Your task to perform on an android device: Open calendar and show me the second week of next month Image 0: 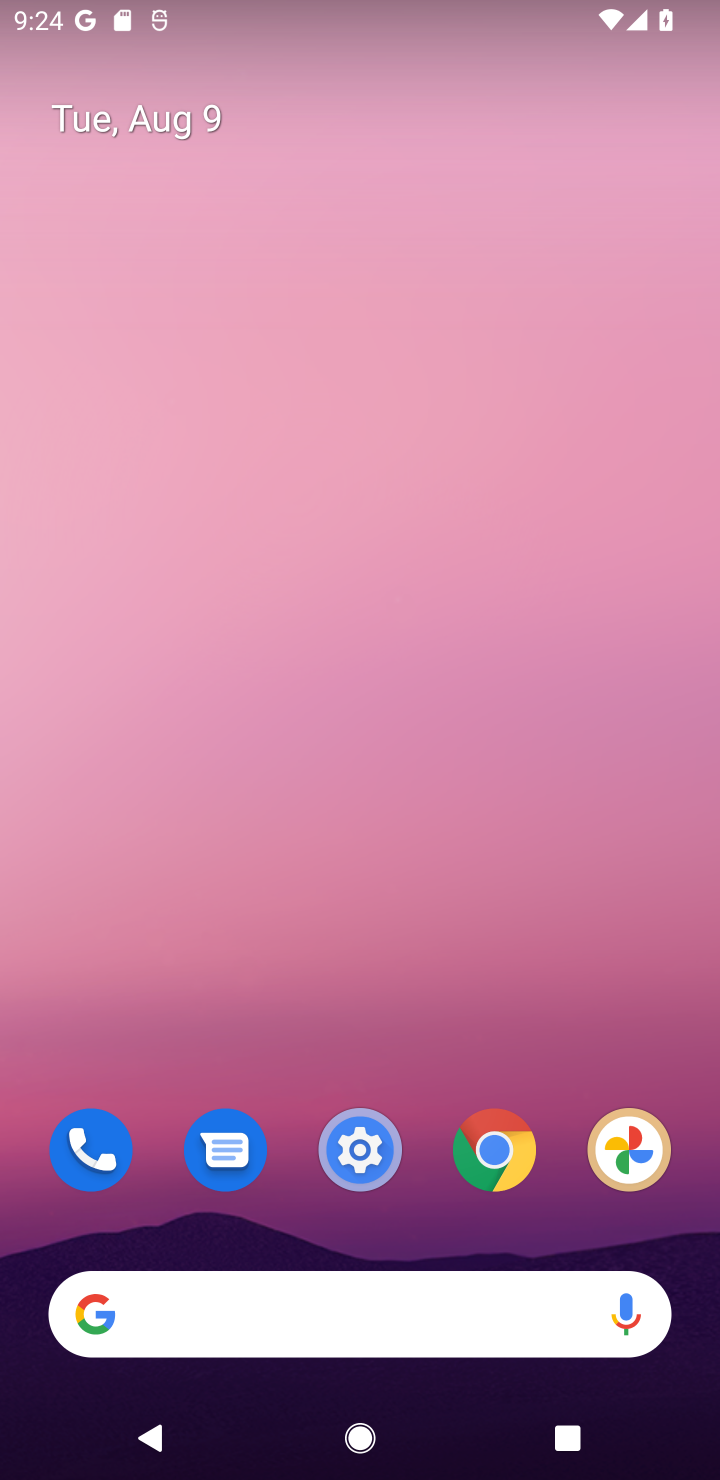
Step 0: drag from (327, 1318) to (437, 183)
Your task to perform on an android device: Open calendar and show me the second week of next month Image 1: 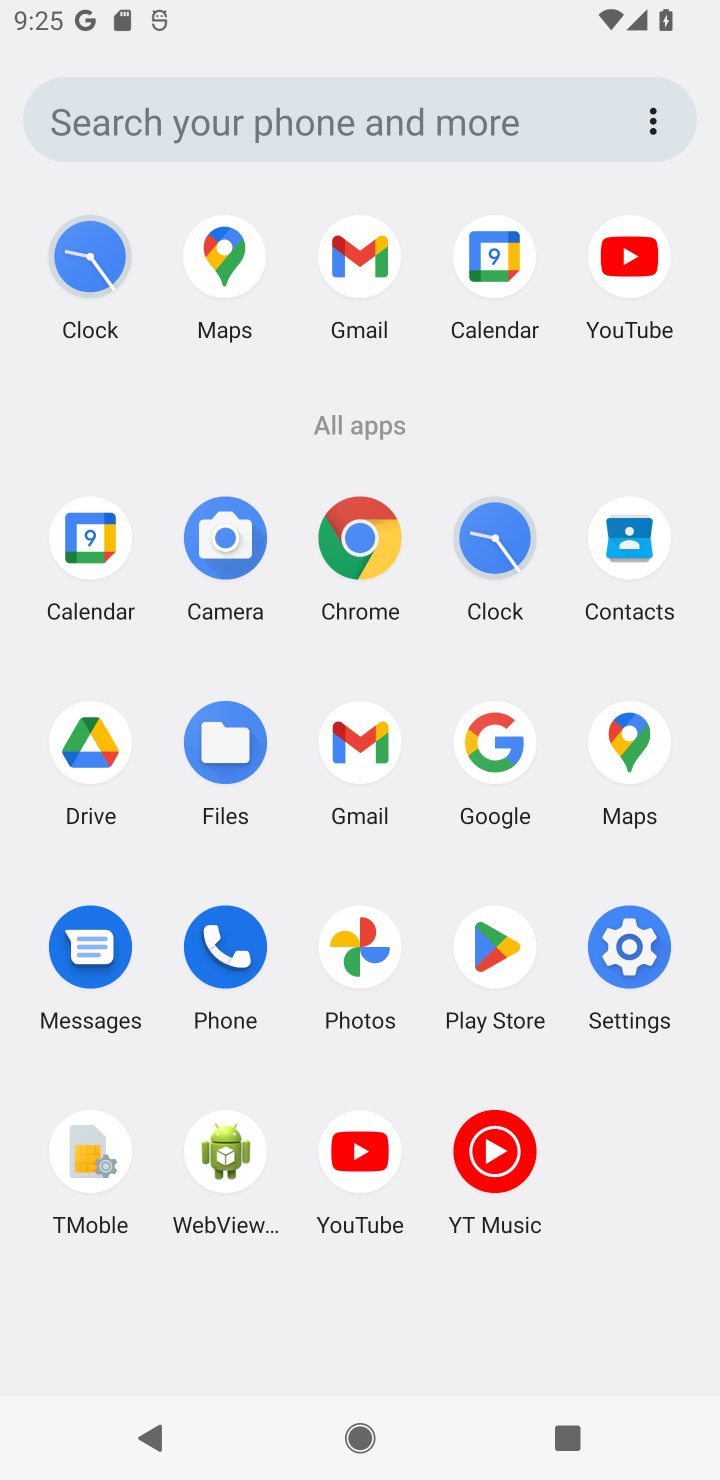
Step 1: click (109, 593)
Your task to perform on an android device: Open calendar and show me the second week of next month Image 2: 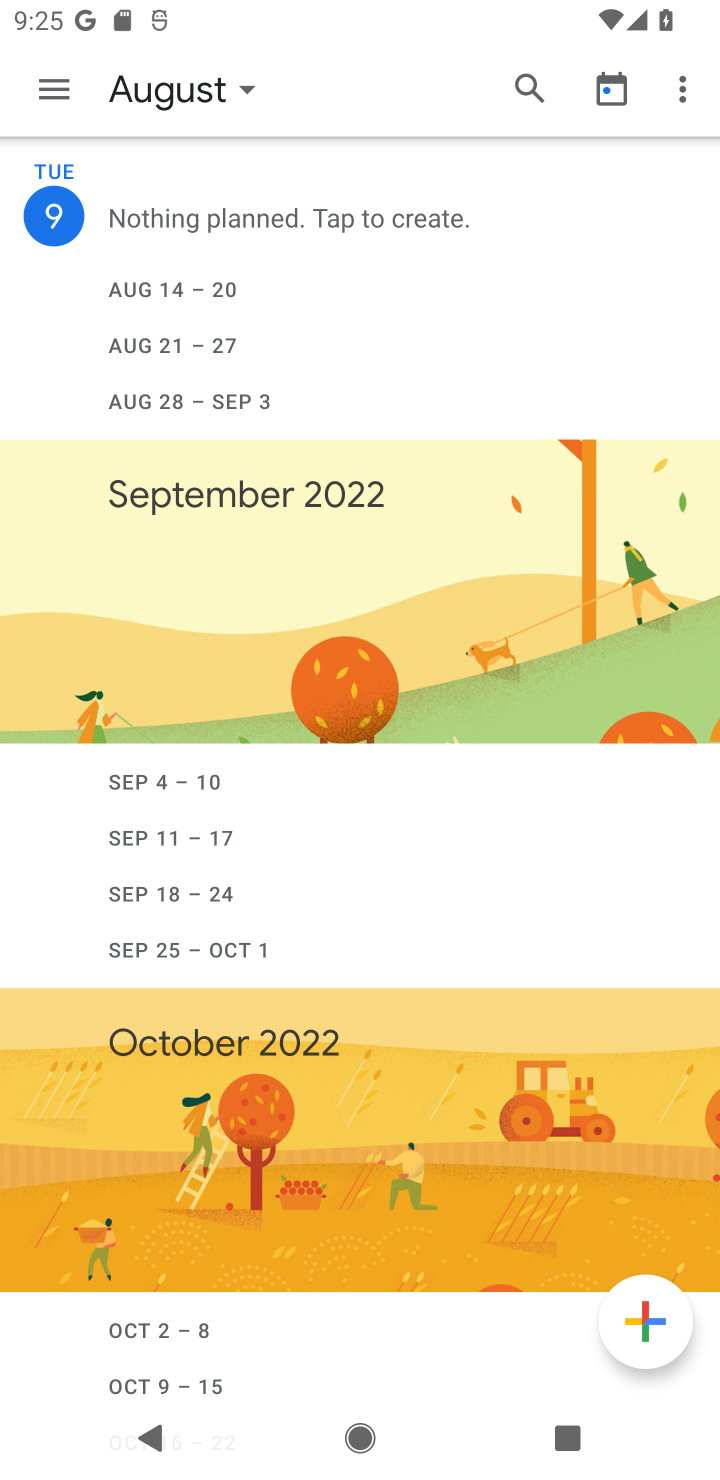
Step 2: click (138, 106)
Your task to perform on an android device: Open calendar and show me the second week of next month Image 3: 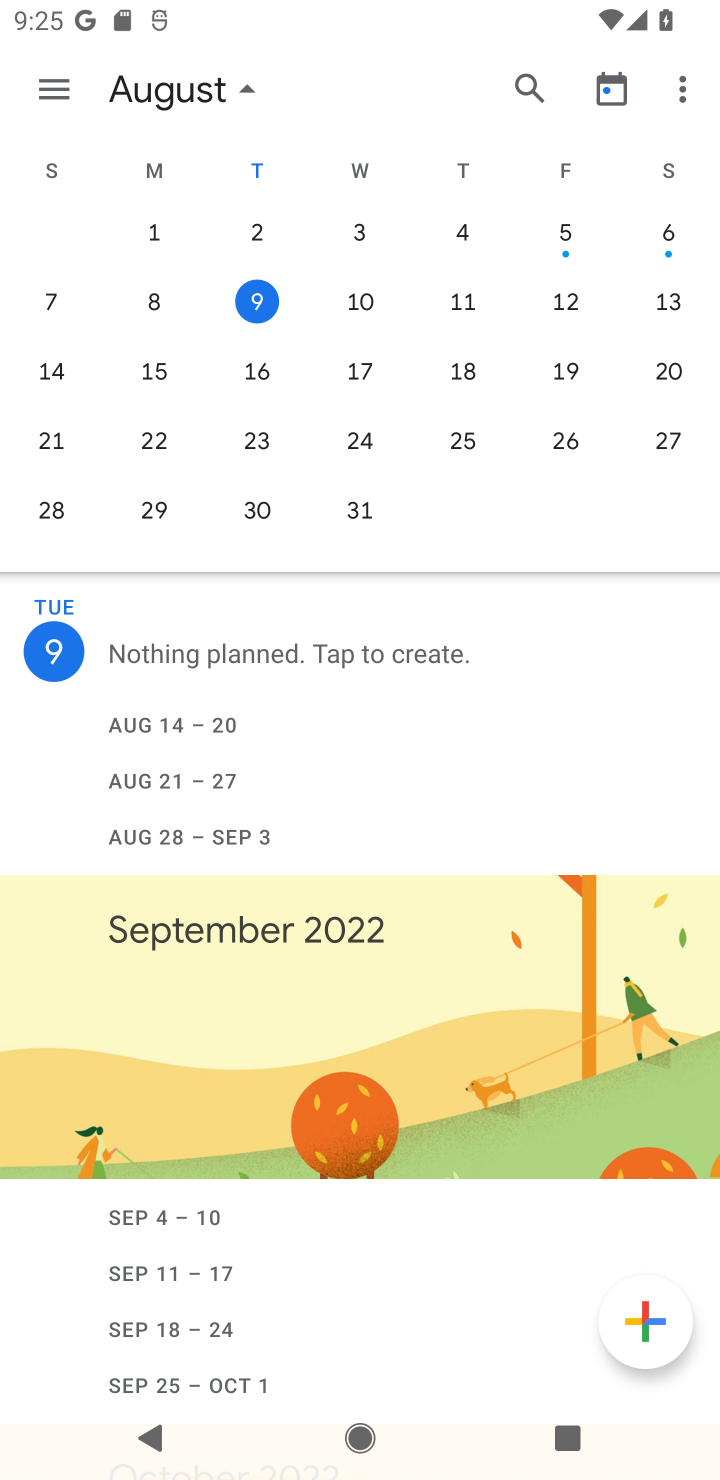
Step 3: drag from (586, 332) to (6, 359)
Your task to perform on an android device: Open calendar and show me the second week of next month Image 4: 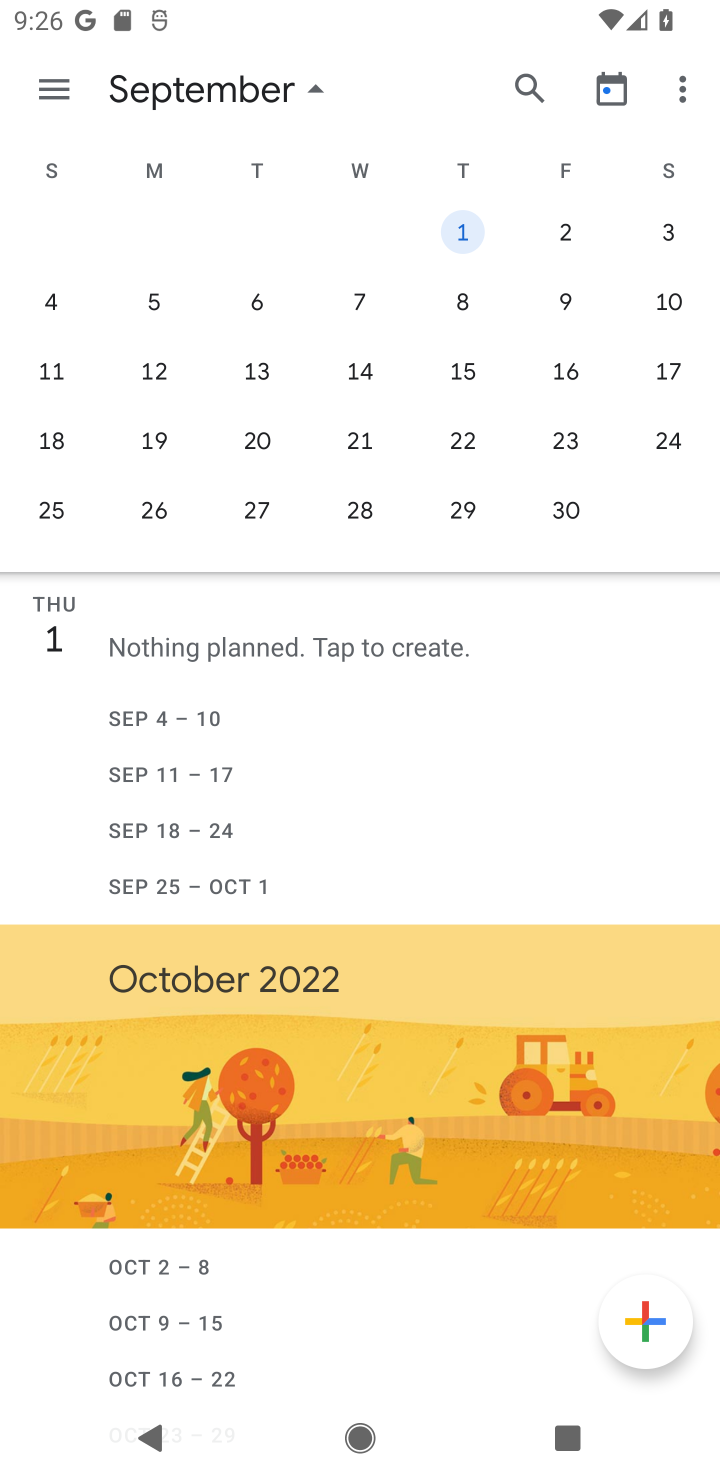
Step 4: click (74, 360)
Your task to perform on an android device: Open calendar and show me the second week of next month Image 5: 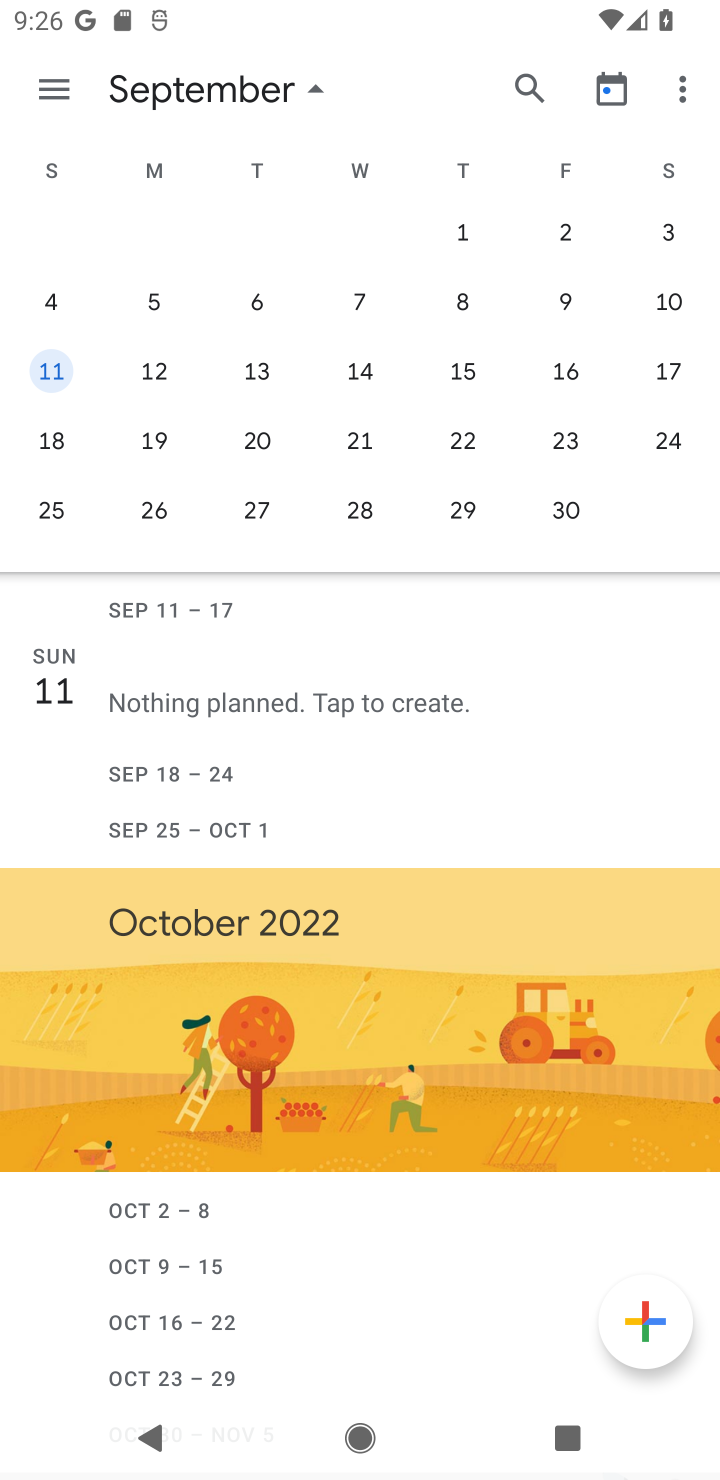
Step 5: task complete